Your task to perform on an android device: Open accessibility settings Image 0: 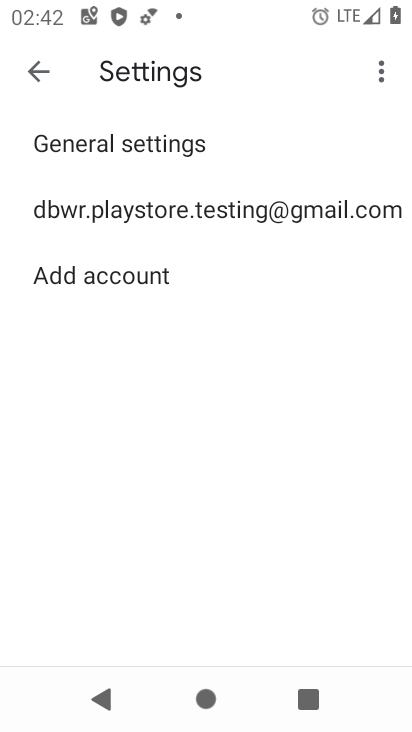
Step 0: press home button
Your task to perform on an android device: Open accessibility settings Image 1: 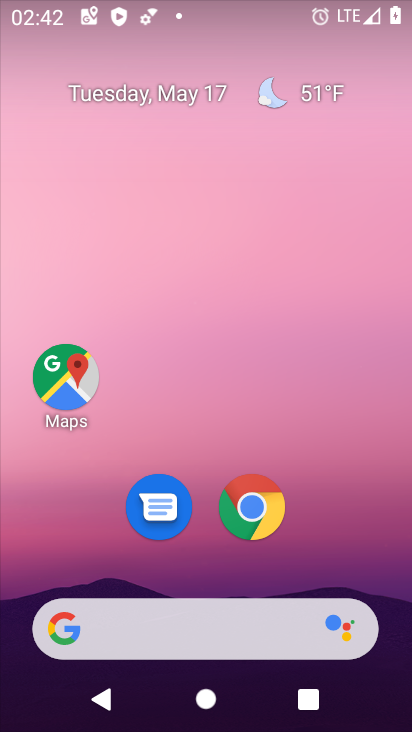
Step 1: drag from (343, 518) to (295, 193)
Your task to perform on an android device: Open accessibility settings Image 2: 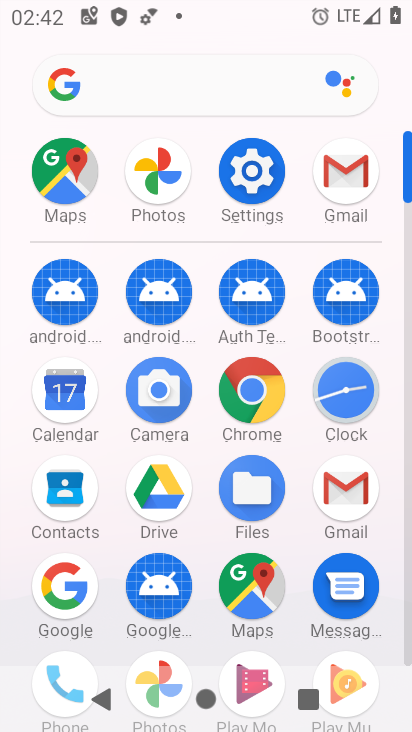
Step 2: click (264, 175)
Your task to perform on an android device: Open accessibility settings Image 3: 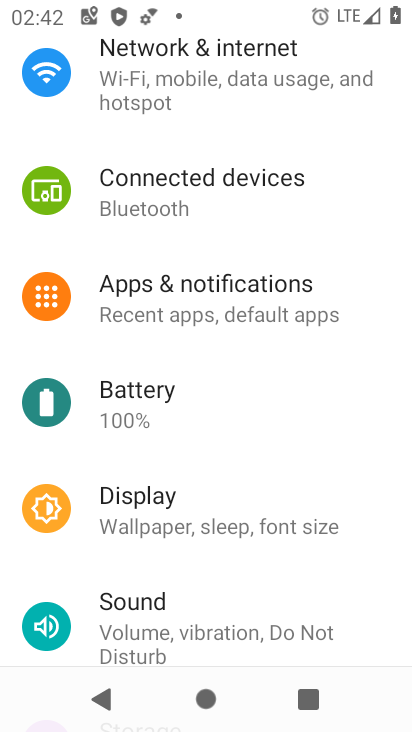
Step 3: drag from (191, 504) to (193, 309)
Your task to perform on an android device: Open accessibility settings Image 4: 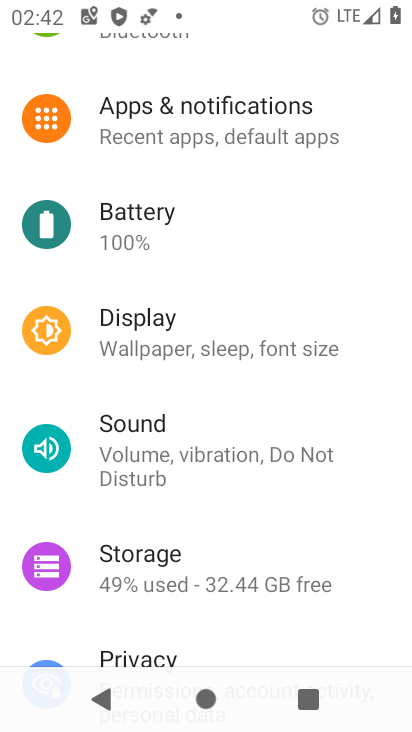
Step 4: drag from (220, 532) to (236, 382)
Your task to perform on an android device: Open accessibility settings Image 5: 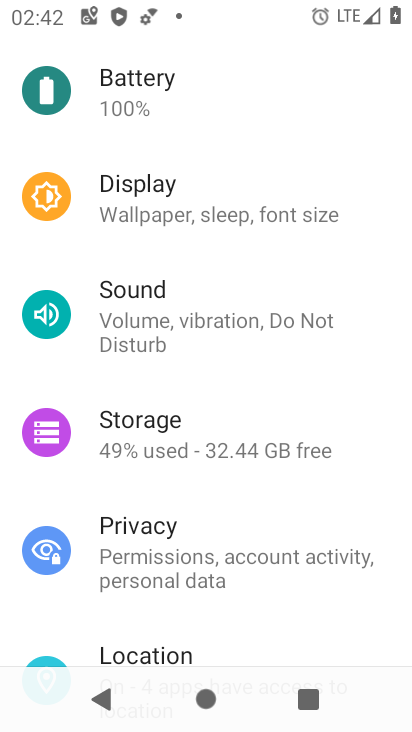
Step 5: drag from (252, 535) to (254, 368)
Your task to perform on an android device: Open accessibility settings Image 6: 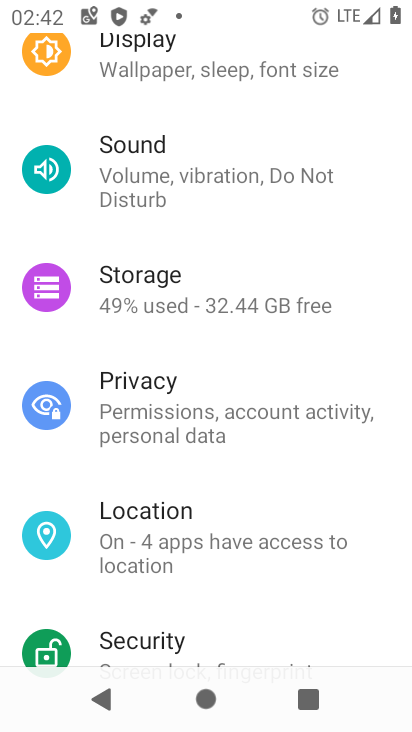
Step 6: drag from (236, 577) to (256, 353)
Your task to perform on an android device: Open accessibility settings Image 7: 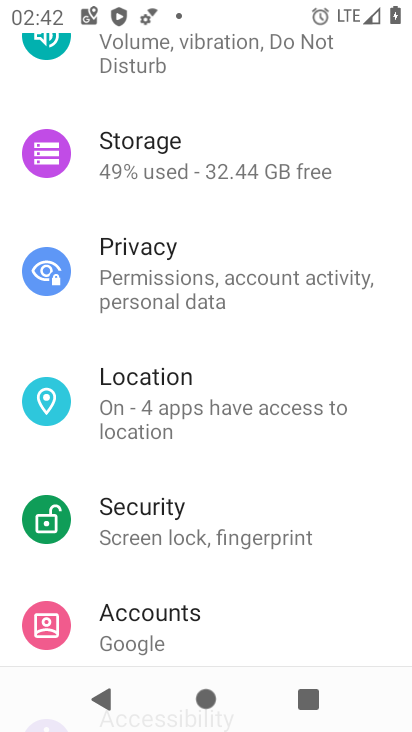
Step 7: drag from (205, 575) to (206, 409)
Your task to perform on an android device: Open accessibility settings Image 8: 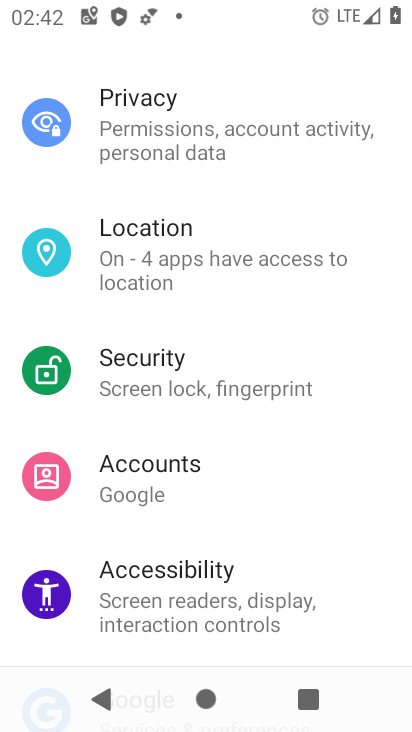
Step 8: drag from (200, 508) to (189, 329)
Your task to perform on an android device: Open accessibility settings Image 9: 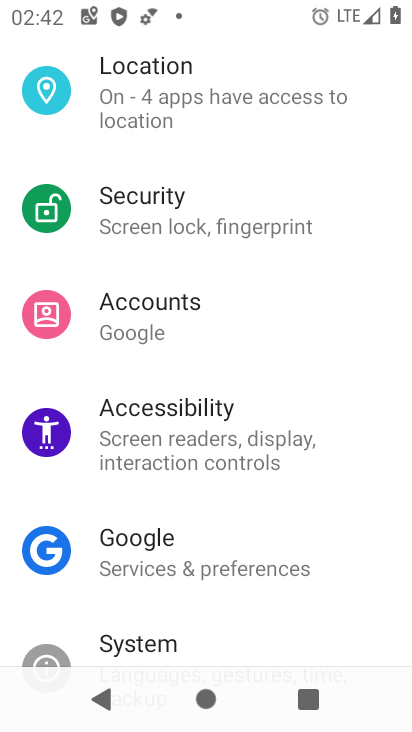
Step 9: click (184, 454)
Your task to perform on an android device: Open accessibility settings Image 10: 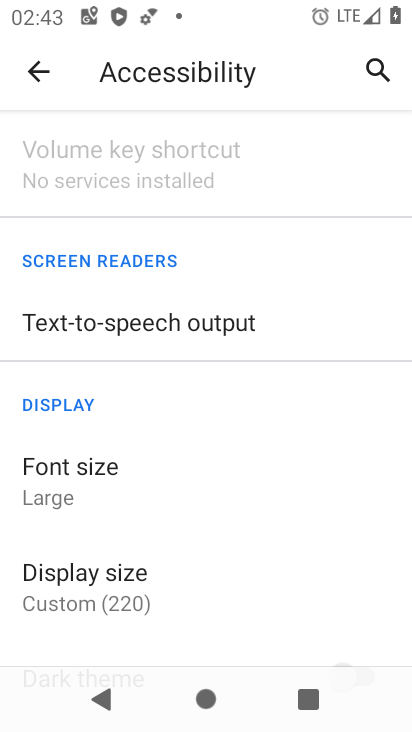
Step 10: task complete